Your task to perform on an android device: check android version Image 0: 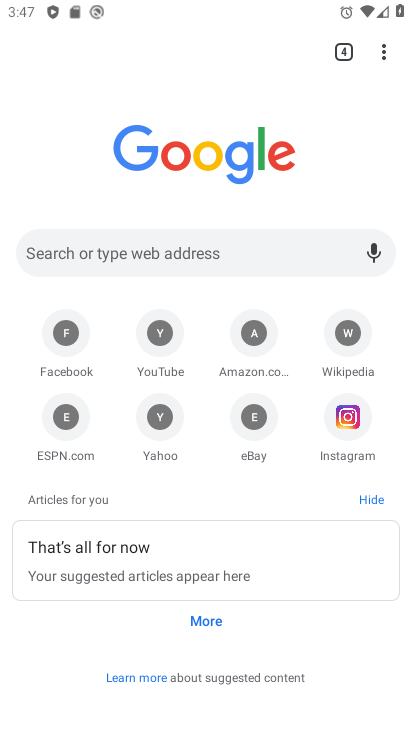
Step 0: press home button
Your task to perform on an android device: check android version Image 1: 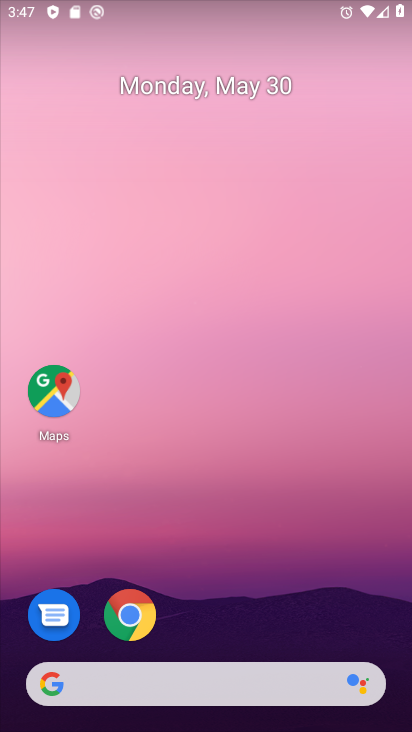
Step 1: drag from (232, 590) to (263, 54)
Your task to perform on an android device: check android version Image 2: 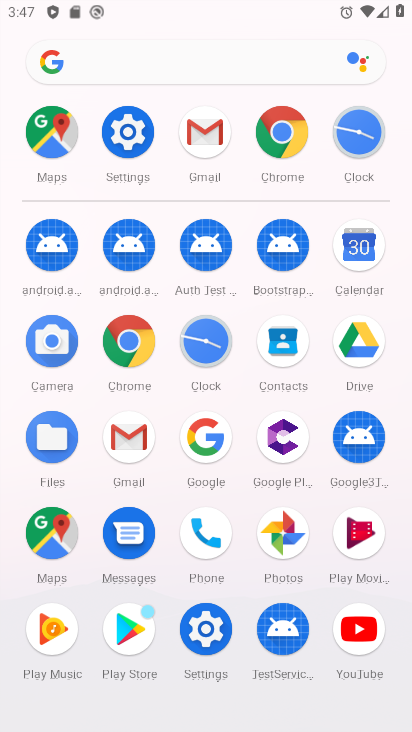
Step 2: click (127, 138)
Your task to perform on an android device: check android version Image 3: 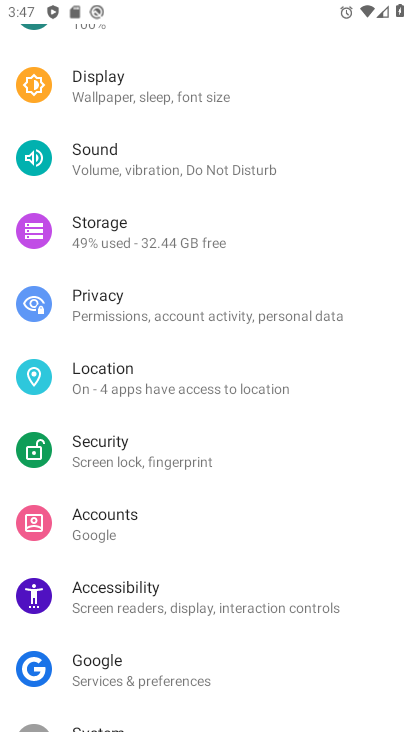
Step 3: drag from (282, 618) to (280, 219)
Your task to perform on an android device: check android version Image 4: 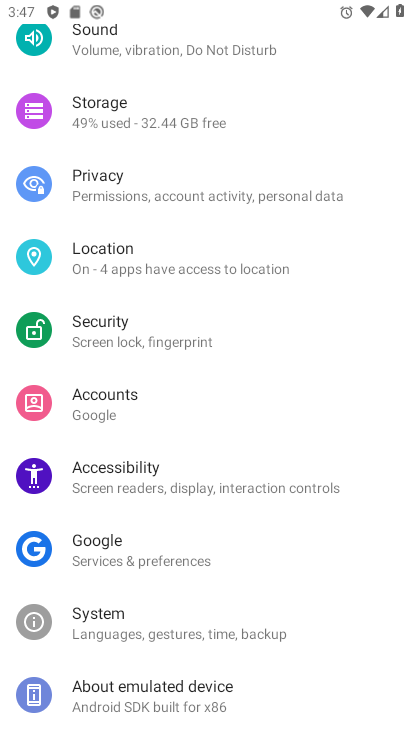
Step 4: click (216, 679)
Your task to perform on an android device: check android version Image 5: 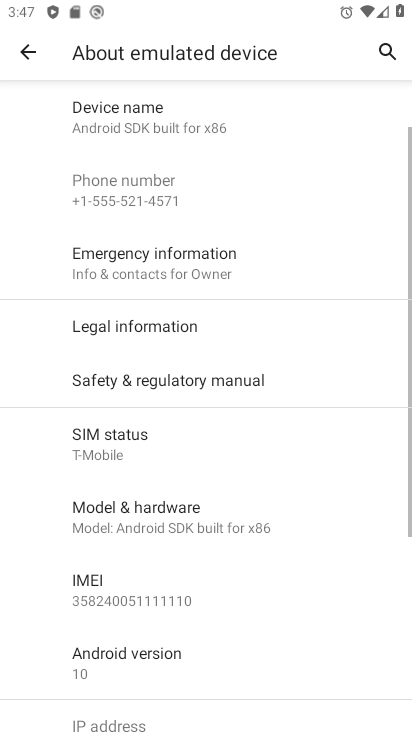
Step 5: drag from (268, 607) to (278, 449)
Your task to perform on an android device: check android version Image 6: 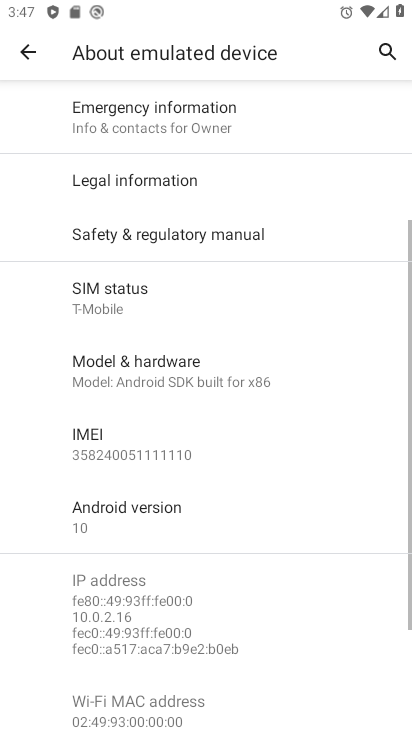
Step 6: click (232, 526)
Your task to perform on an android device: check android version Image 7: 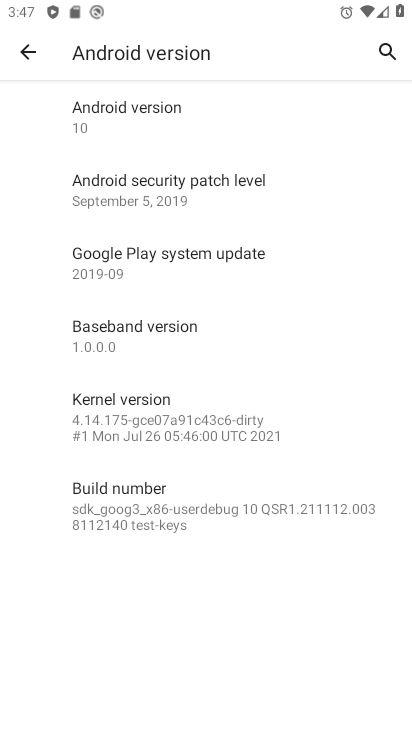
Step 7: task complete